Your task to perform on an android device: change the clock display to show seconds Image 0: 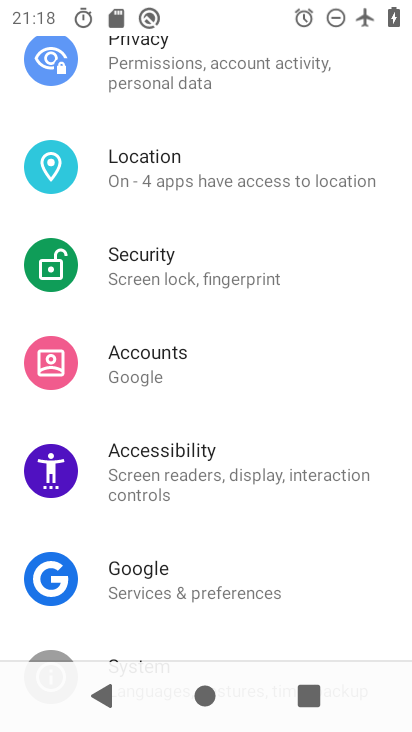
Step 0: press home button
Your task to perform on an android device: change the clock display to show seconds Image 1: 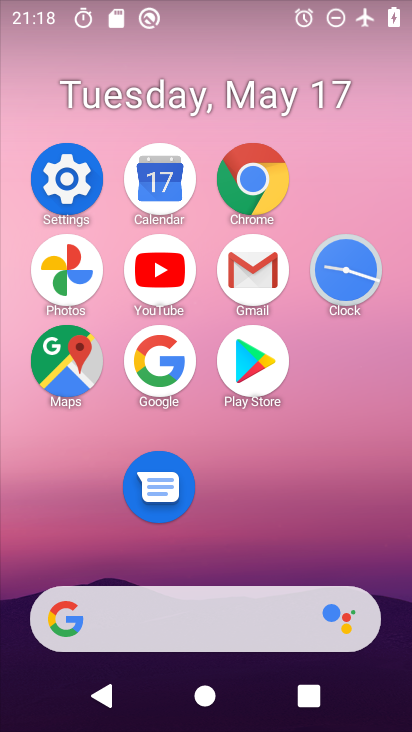
Step 1: click (345, 275)
Your task to perform on an android device: change the clock display to show seconds Image 2: 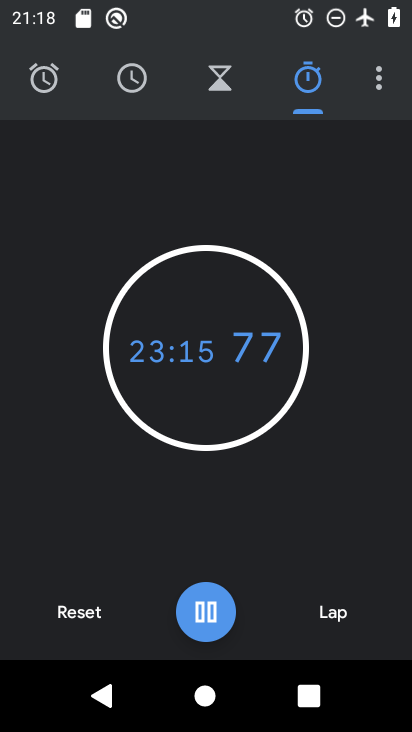
Step 2: click (372, 83)
Your task to perform on an android device: change the clock display to show seconds Image 3: 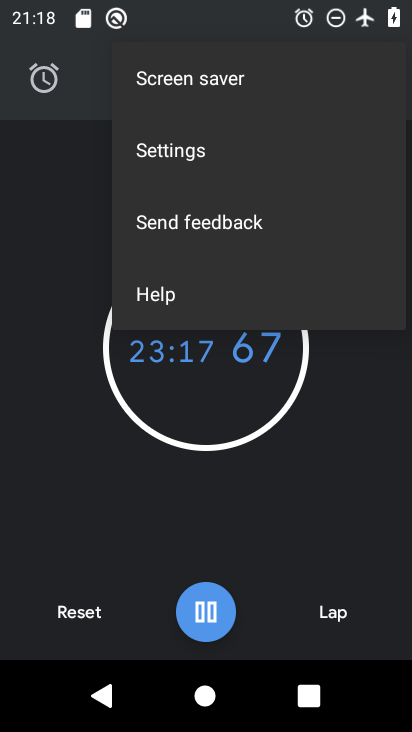
Step 3: click (230, 146)
Your task to perform on an android device: change the clock display to show seconds Image 4: 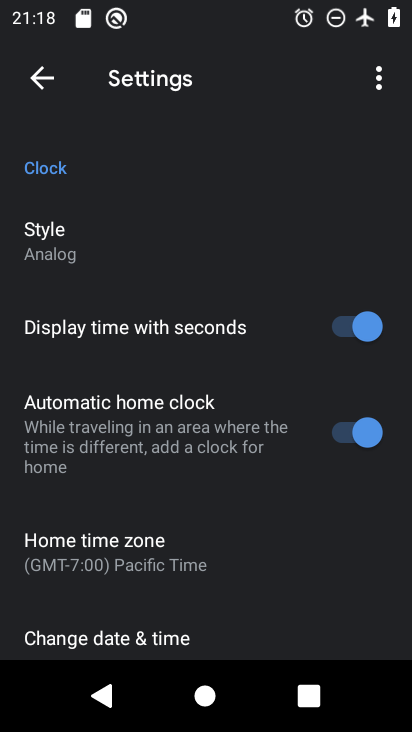
Step 4: click (335, 329)
Your task to perform on an android device: change the clock display to show seconds Image 5: 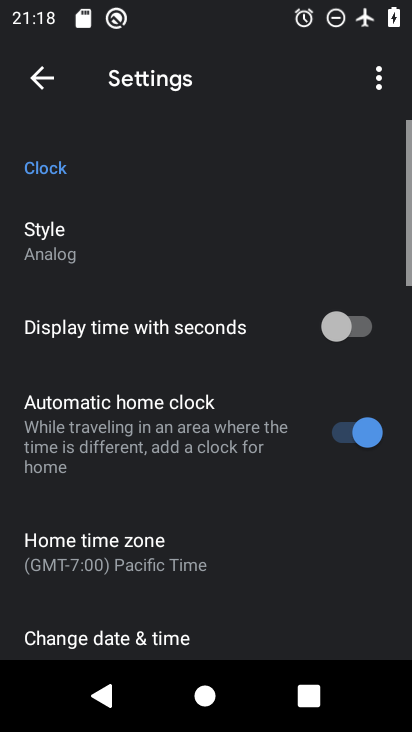
Step 5: task complete